Your task to perform on an android device: star an email in the gmail app Image 0: 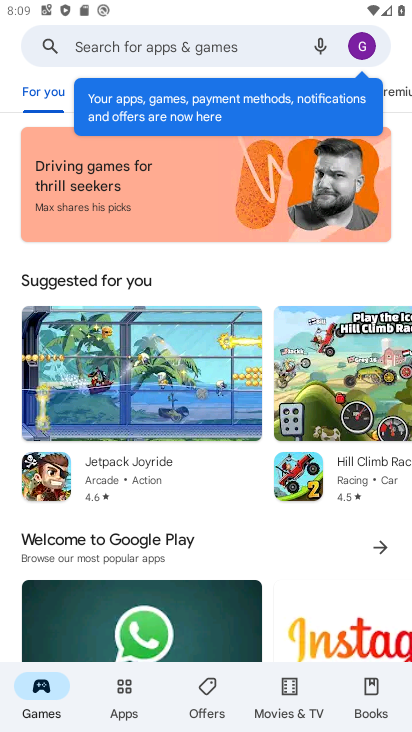
Step 0: press home button
Your task to perform on an android device: star an email in the gmail app Image 1: 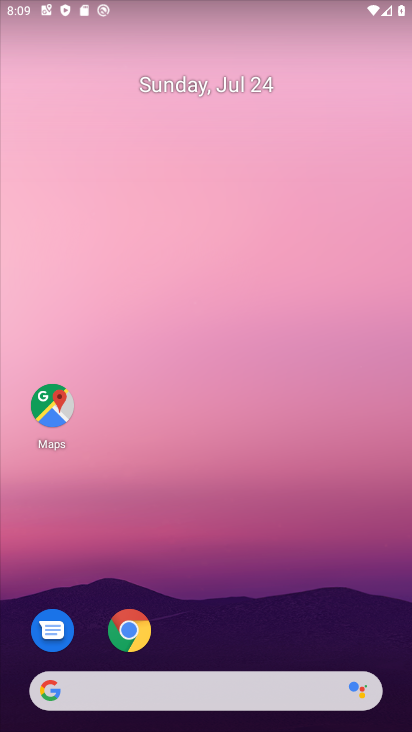
Step 1: drag from (270, 641) to (279, 4)
Your task to perform on an android device: star an email in the gmail app Image 2: 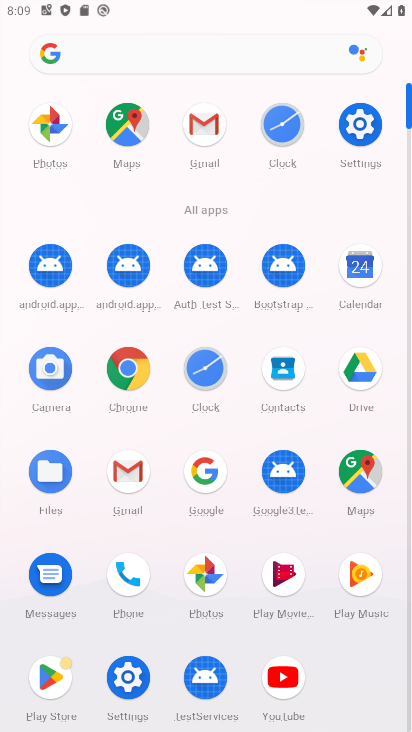
Step 2: click (219, 130)
Your task to perform on an android device: star an email in the gmail app Image 3: 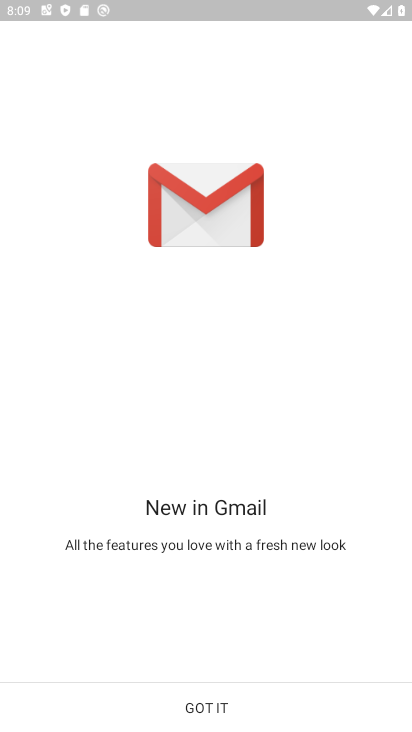
Step 3: click (210, 696)
Your task to perform on an android device: star an email in the gmail app Image 4: 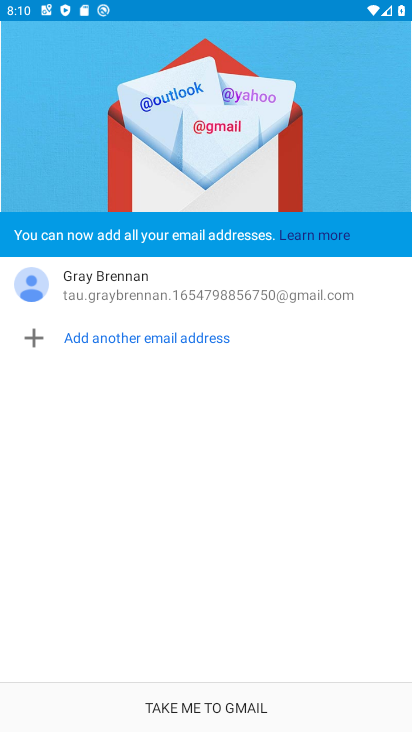
Step 4: click (210, 696)
Your task to perform on an android device: star an email in the gmail app Image 5: 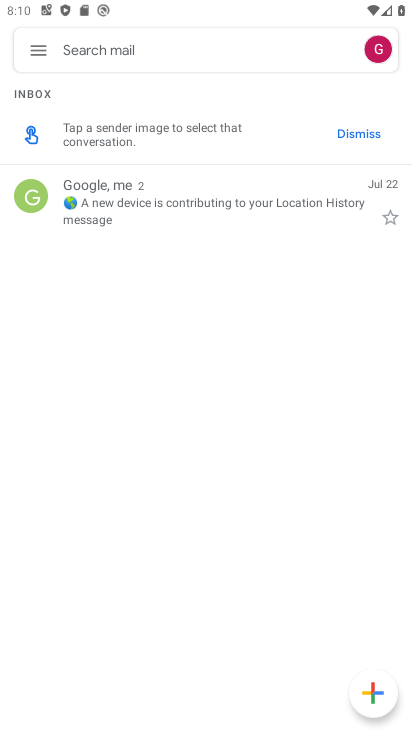
Step 5: click (386, 217)
Your task to perform on an android device: star an email in the gmail app Image 6: 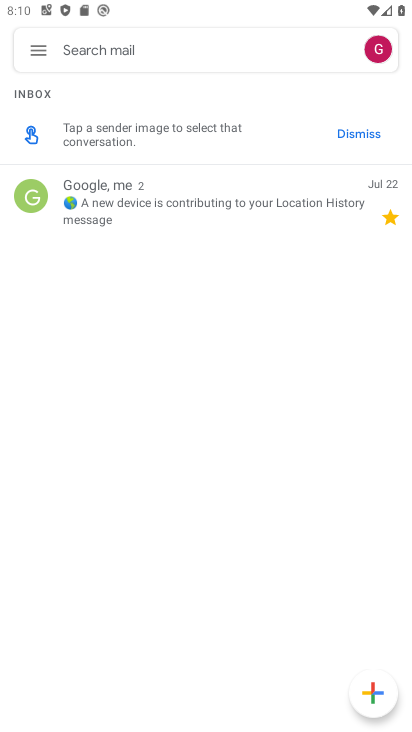
Step 6: task complete